Your task to perform on an android device: turn smart compose on in the gmail app Image 0: 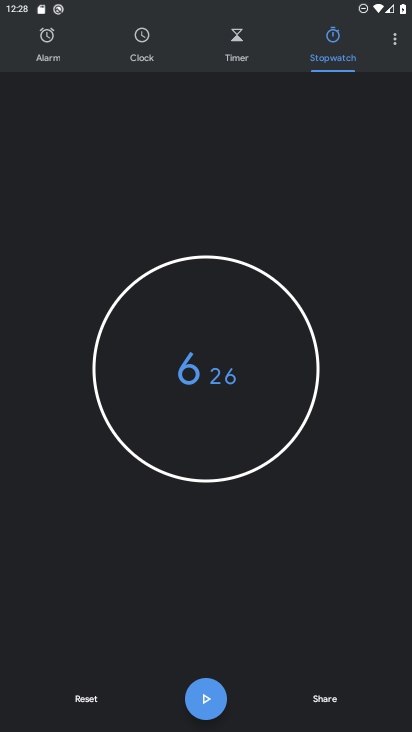
Step 0: press home button
Your task to perform on an android device: turn smart compose on in the gmail app Image 1: 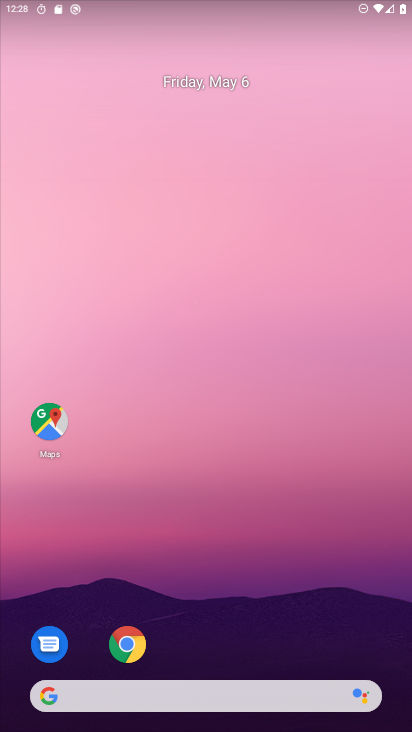
Step 1: drag from (285, 626) to (318, 178)
Your task to perform on an android device: turn smart compose on in the gmail app Image 2: 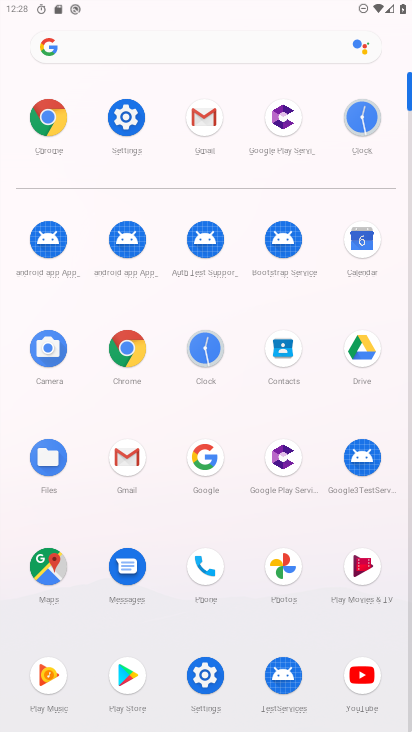
Step 2: click (125, 462)
Your task to perform on an android device: turn smart compose on in the gmail app Image 3: 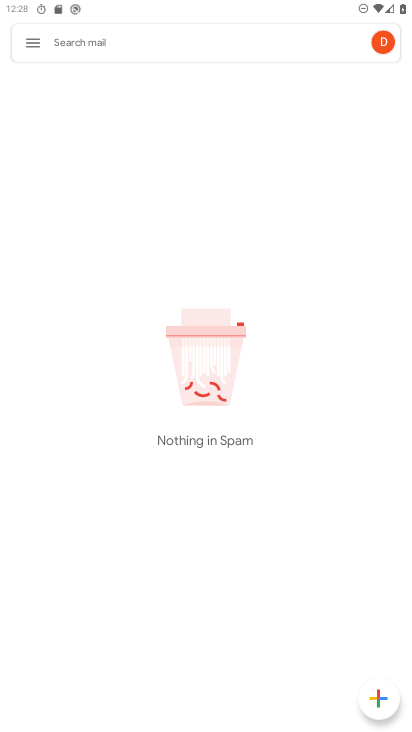
Step 3: click (33, 48)
Your task to perform on an android device: turn smart compose on in the gmail app Image 4: 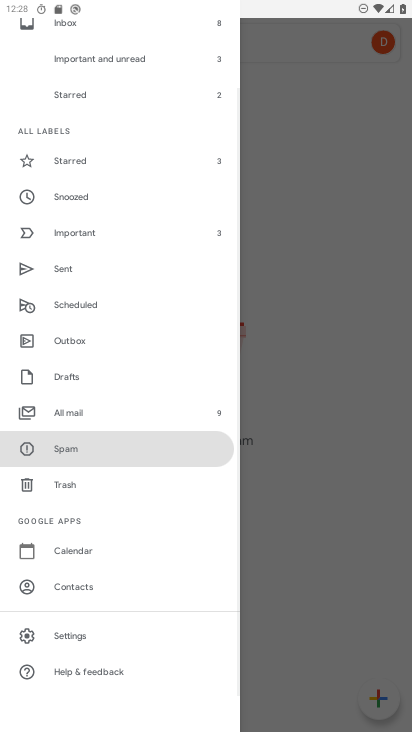
Step 4: click (106, 639)
Your task to perform on an android device: turn smart compose on in the gmail app Image 5: 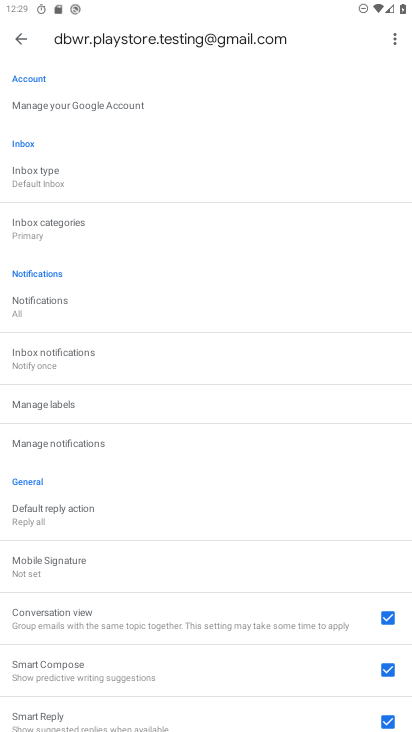
Step 5: task complete